Your task to perform on an android device: change notification settings in the gmail app Image 0: 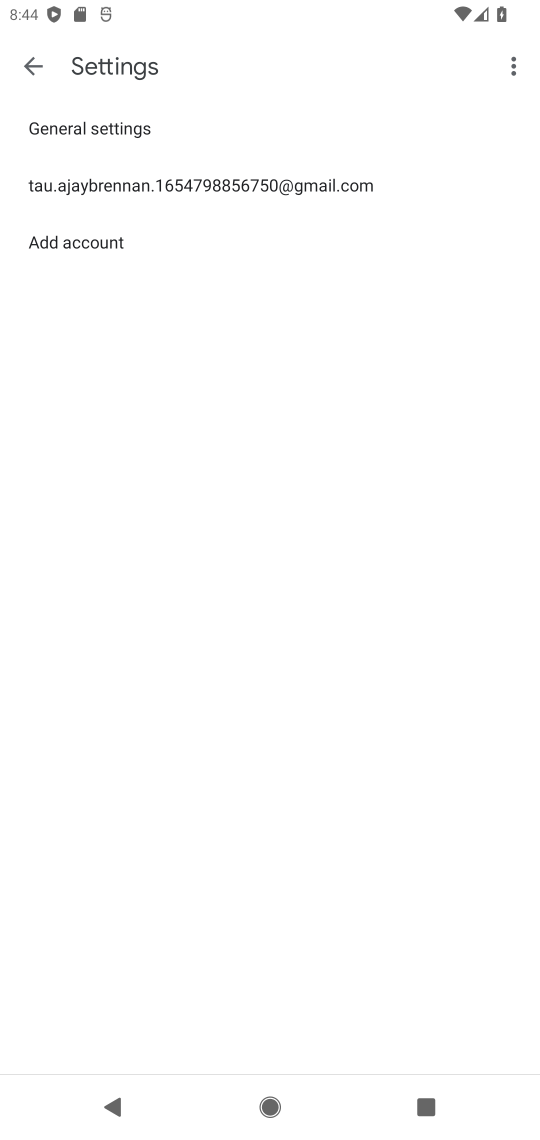
Step 0: press home button
Your task to perform on an android device: change notification settings in the gmail app Image 1: 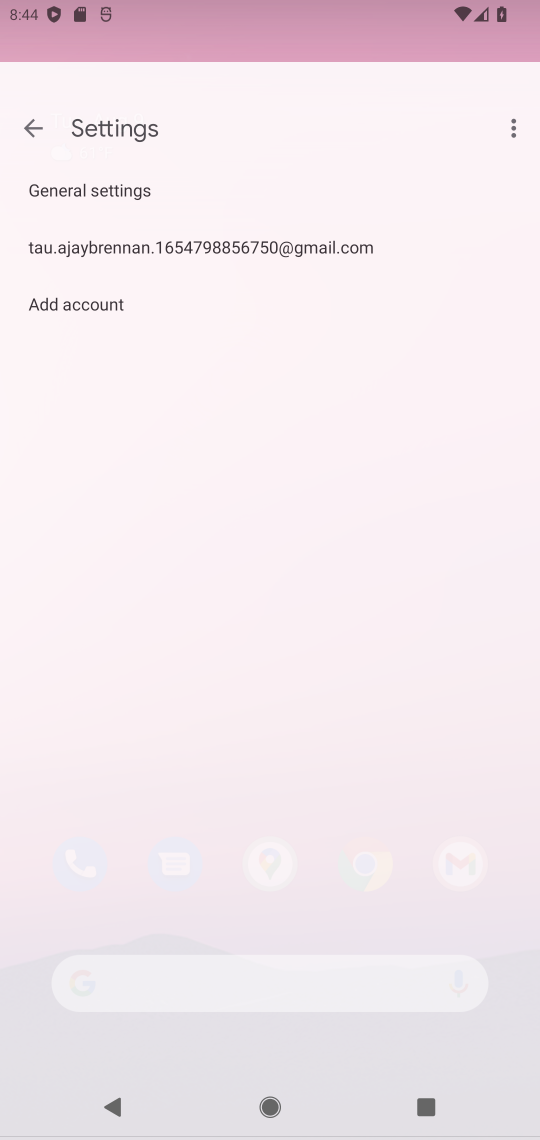
Step 1: press home button
Your task to perform on an android device: change notification settings in the gmail app Image 2: 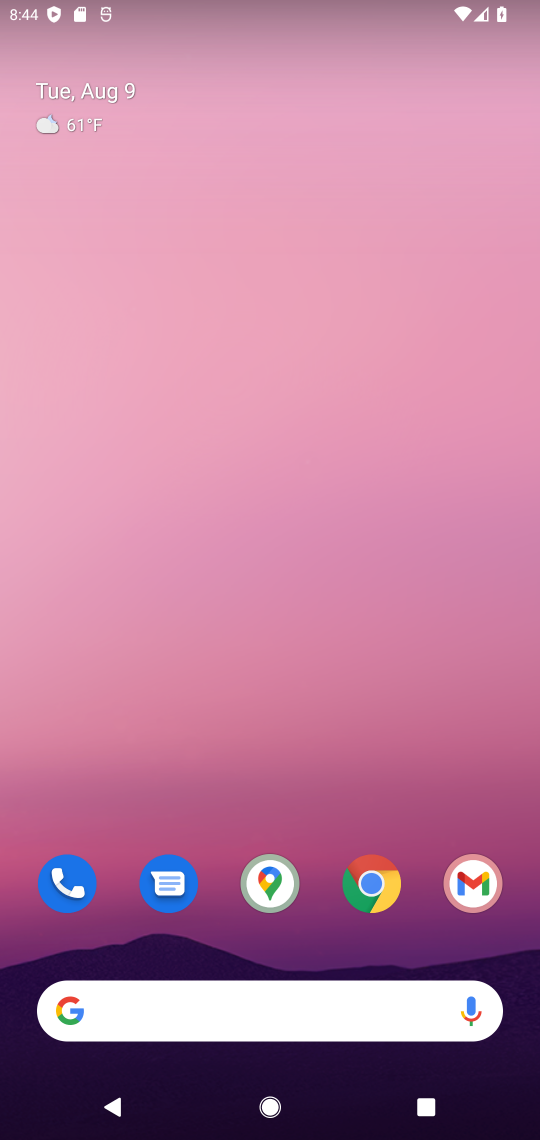
Step 2: drag from (312, 514) to (277, 13)
Your task to perform on an android device: change notification settings in the gmail app Image 3: 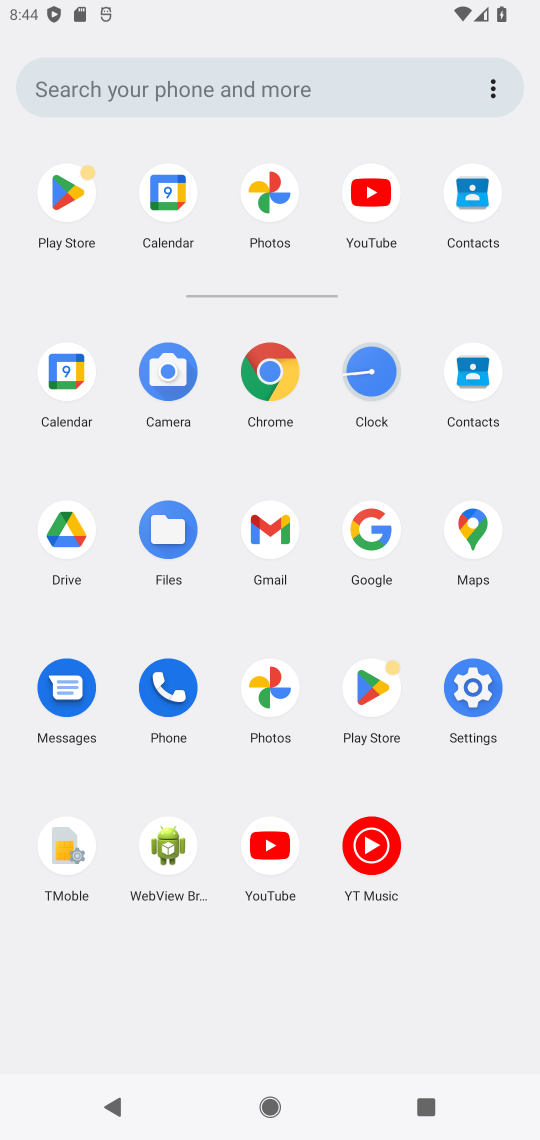
Step 3: click (258, 522)
Your task to perform on an android device: change notification settings in the gmail app Image 4: 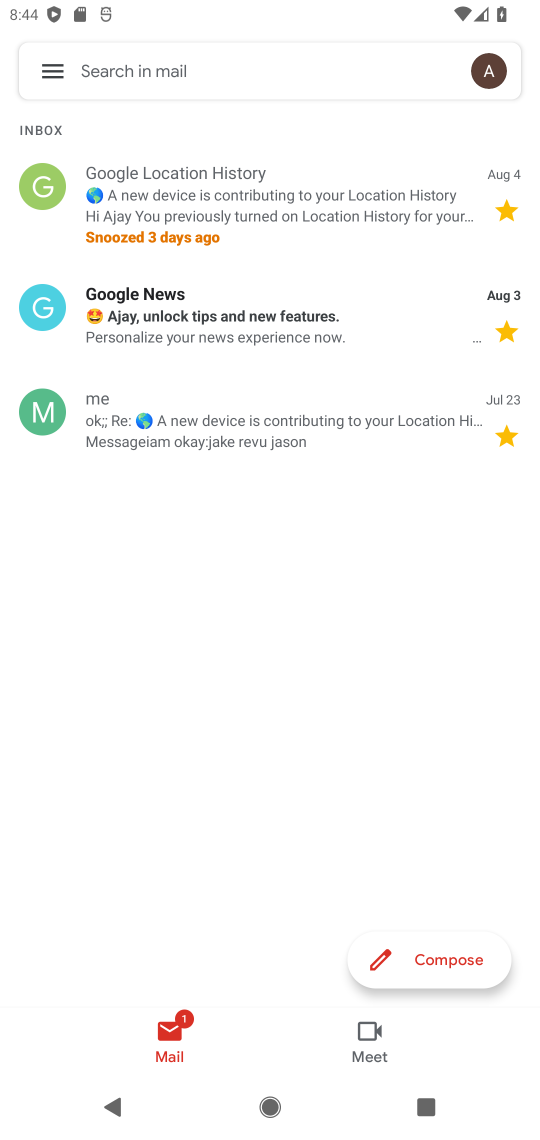
Step 4: click (56, 67)
Your task to perform on an android device: change notification settings in the gmail app Image 5: 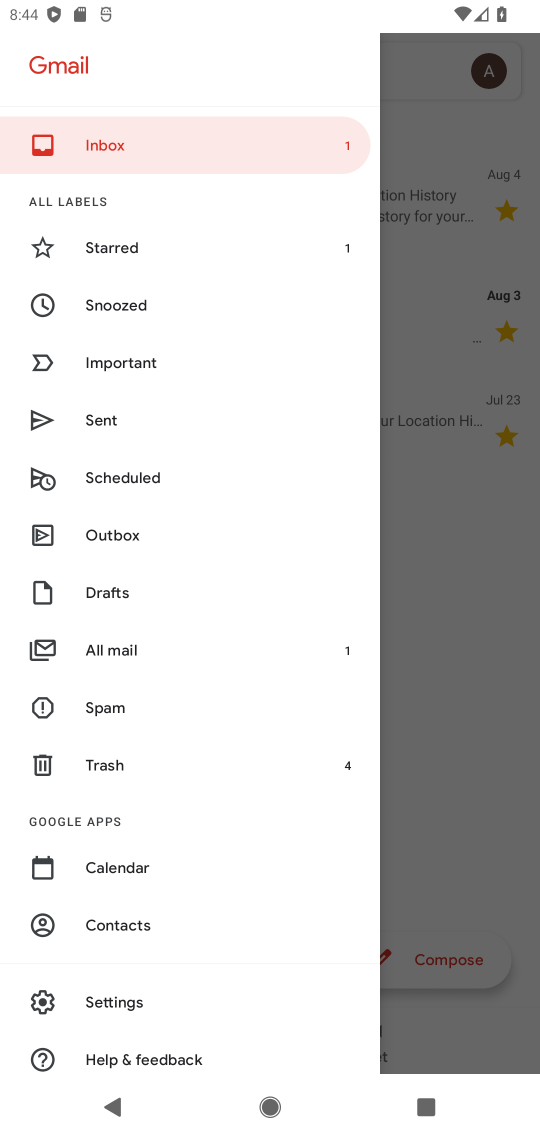
Step 5: click (144, 1002)
Your task to perform on an android device: change notification settings in the gmail app Image 6: 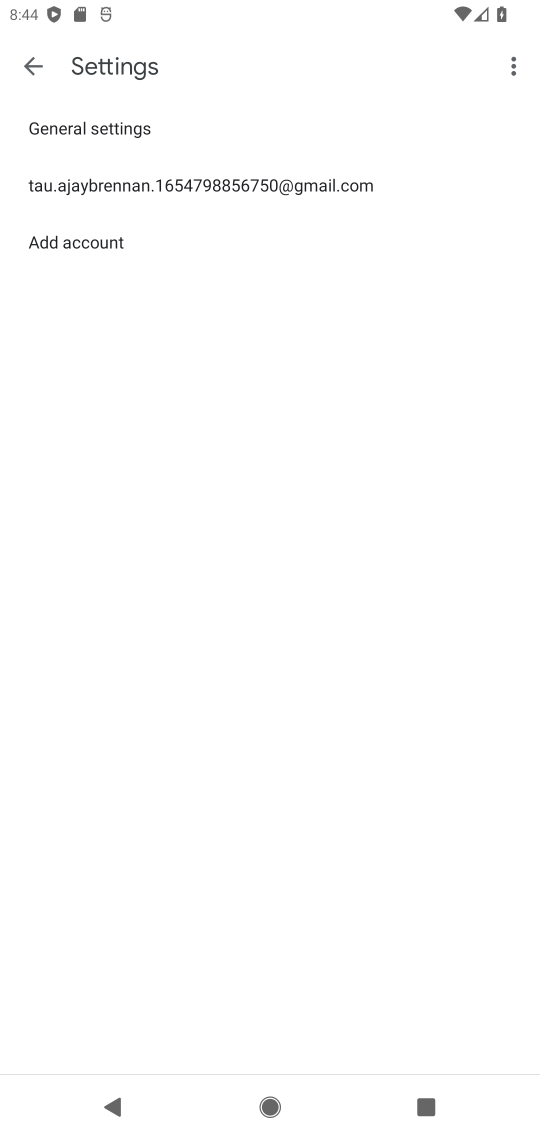
Step 6: click (258, 196)
Your task to perform on an android device: change notification settings in the gmail app Image 7: 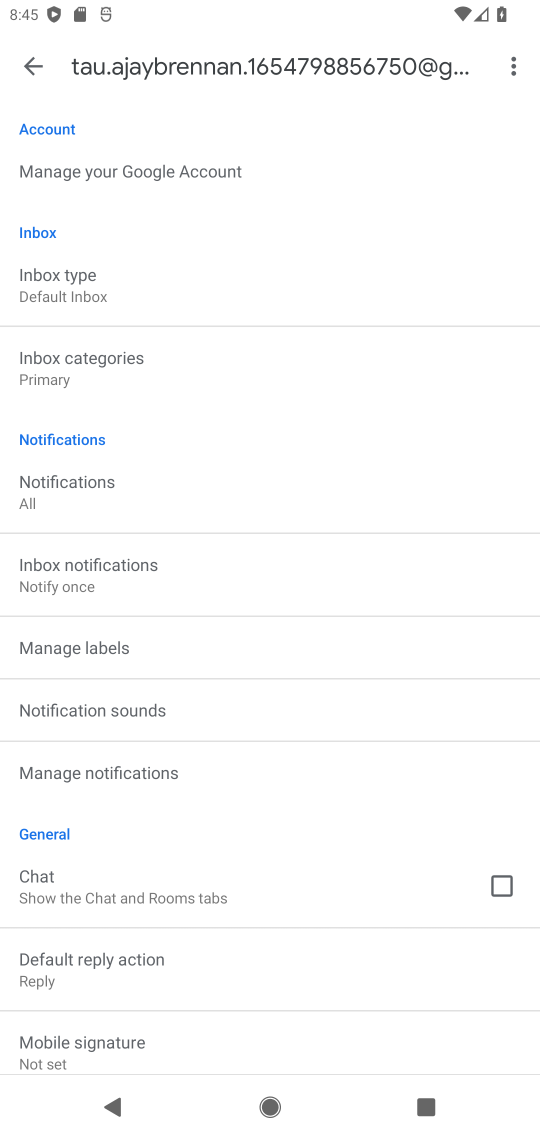
Step 7: click (124, 777)
Your task to perform on an android device: change notification settings in the gmail app Image 8: 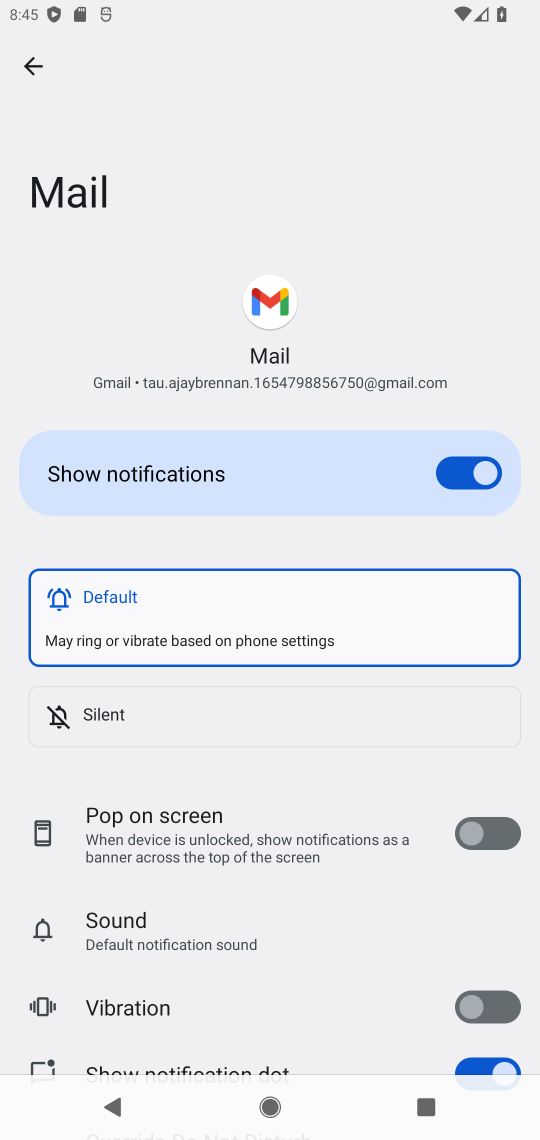
Step 8: click (484, 469)
Your task to perform on an android device: change notification settings in the gmail app Image 9: 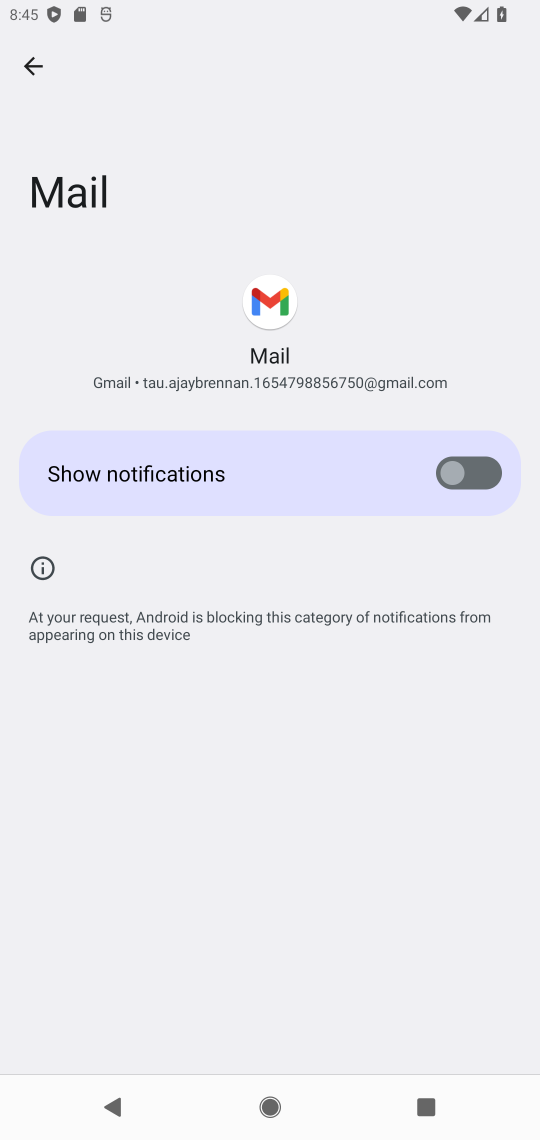
Step 9: task complete